Your task to perform on an android device: What's the weather? Image 0: 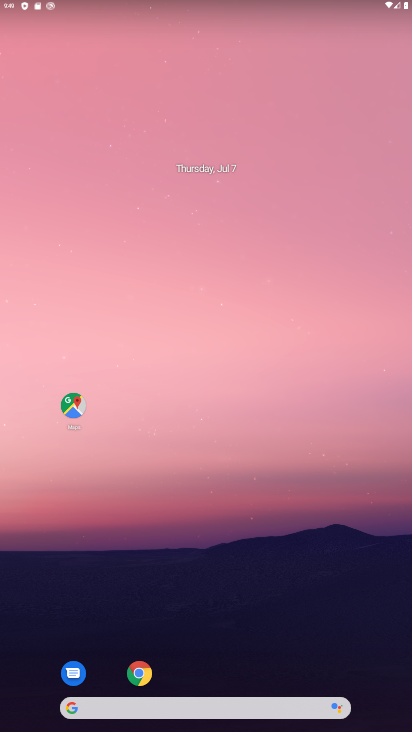
Step 0: drag from (244, 632) to (64, 200)
Your task to perform on an android device: What's the weather? Image 1: 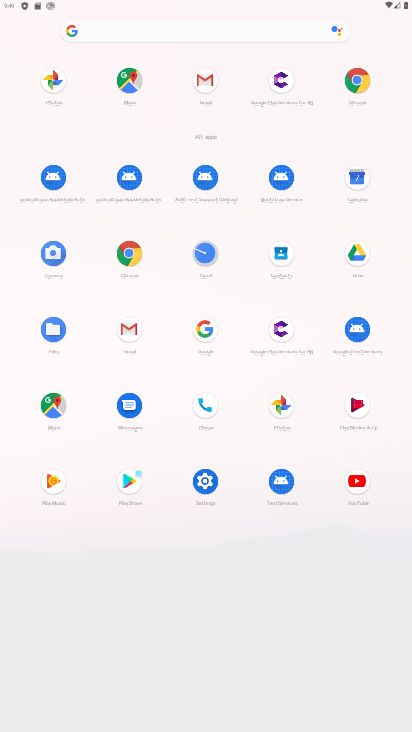
Step 1: click (377, 68)
Your task to perform on an android device: What's the weather? Image 2: 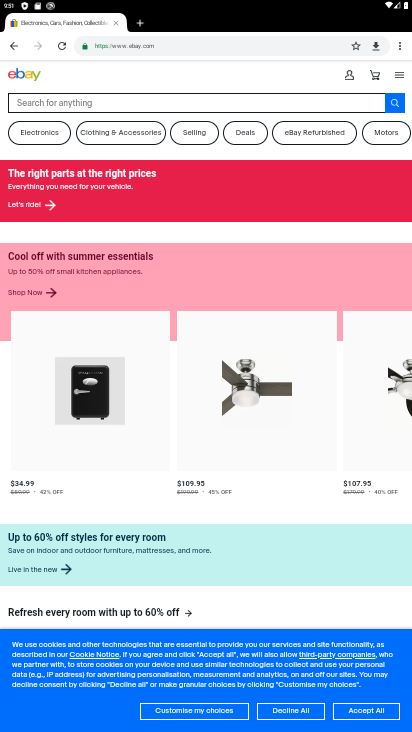
Step 2: click (314, 43)
Your task to perform on an android device: What's the weather? Image 3: 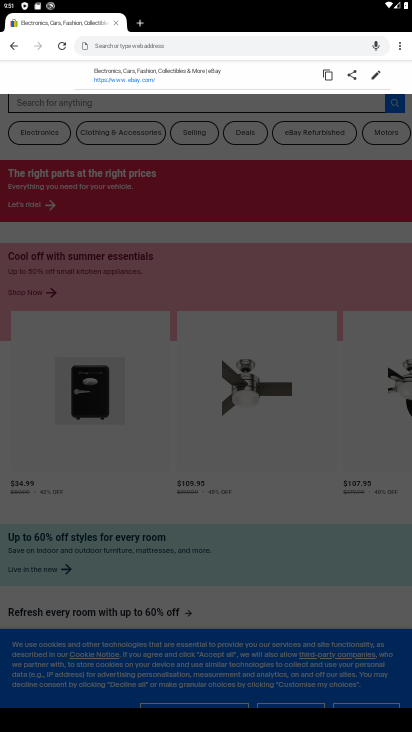
Step 3: type "What's the weather?"
Your task to perform on an android device: What's the weather? Image 4: 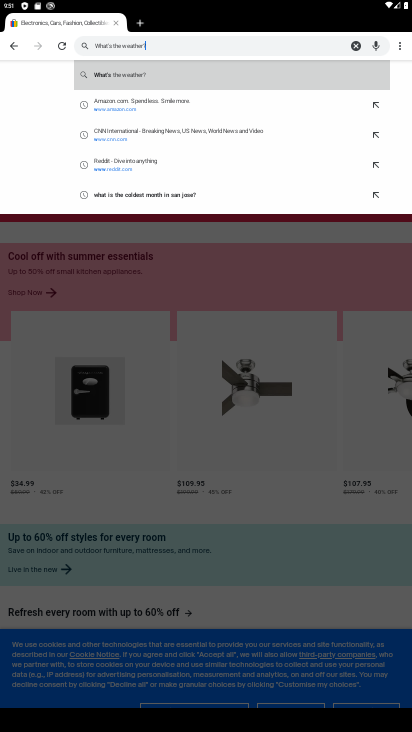
Step 4: type ""
Your task to perform on an android device: What's the weather? Image 5: 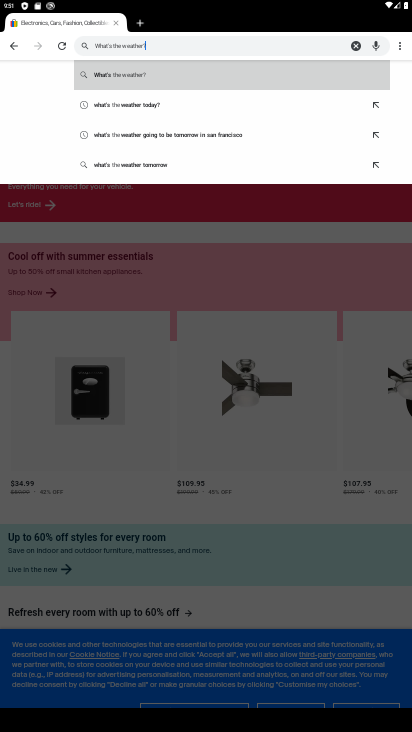
Step 5: click (255, 65)
Your task to perform on an android device: What's the weather? Image 6: 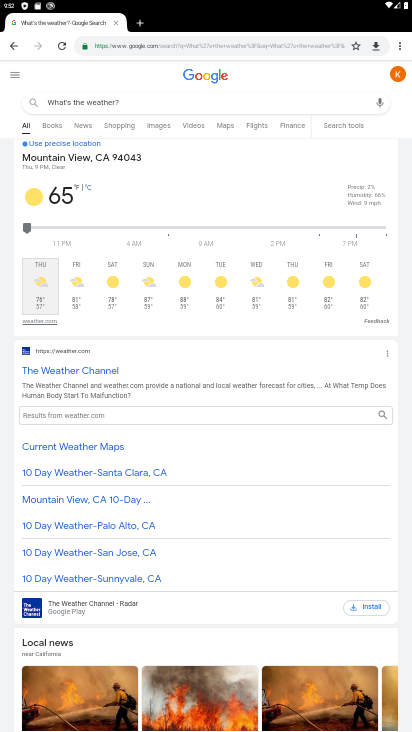
Step 6: task complete